Your task to perform on an android device: open chrome privacy settings Image 0: 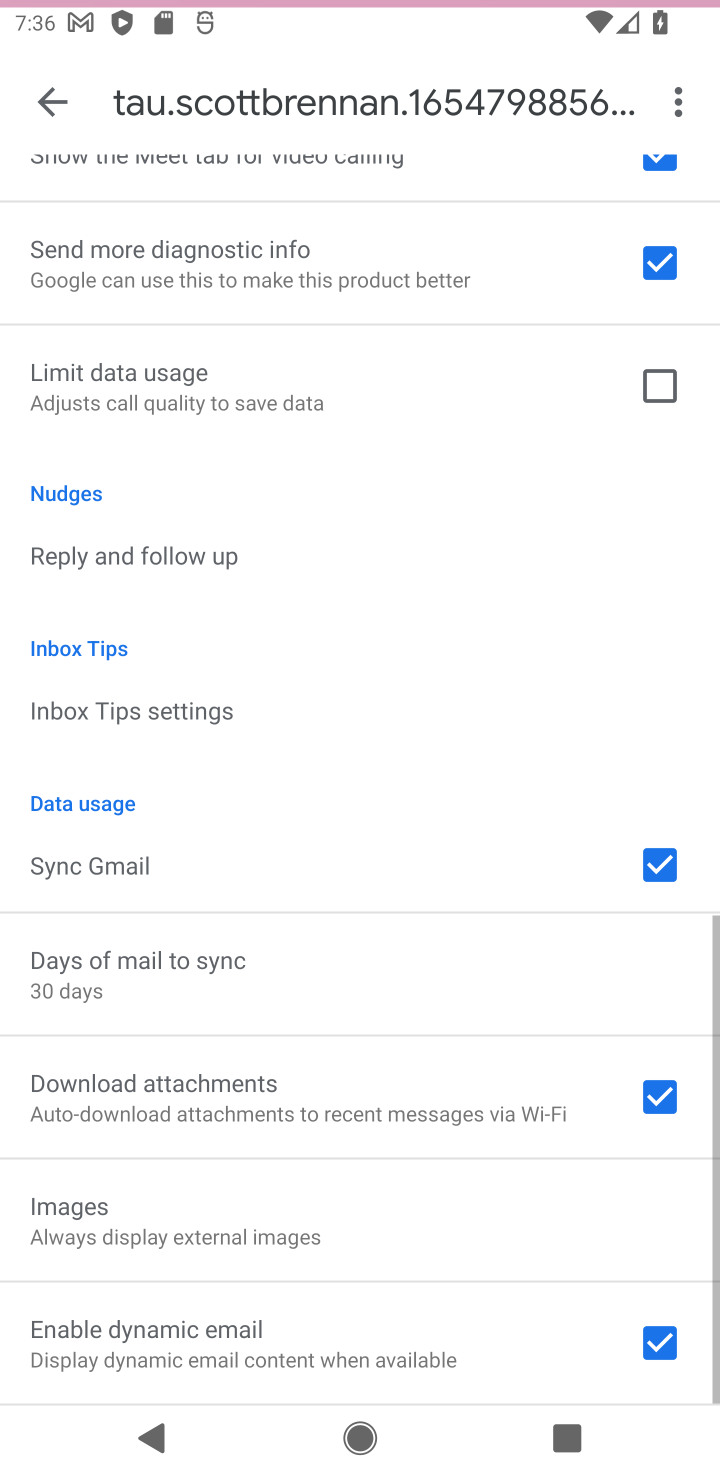
Step 0: press home button
Your task to perform on an android device: open chrome privacy settings Image 1: 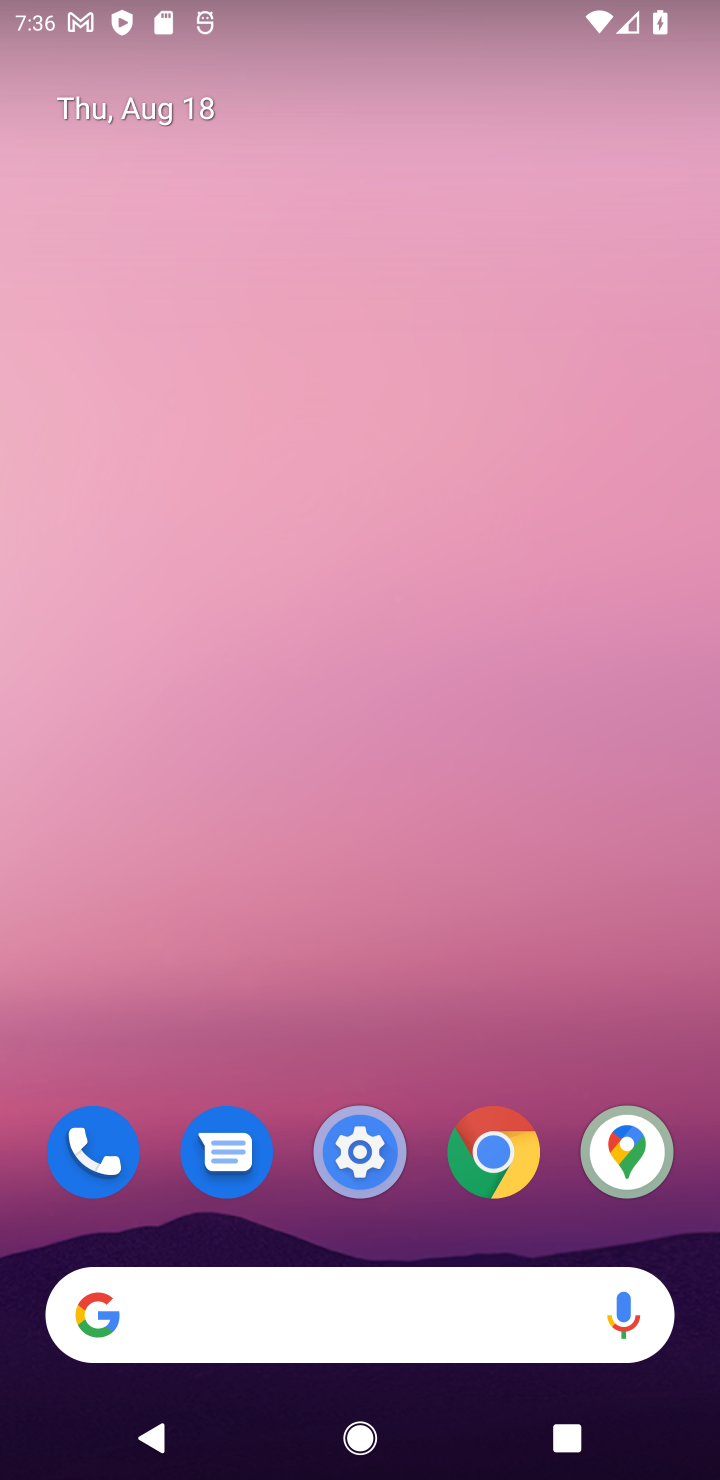
Step 1: click (492, 1169)
Your task to perform on an android device: open chrome privacy settings Image 2: 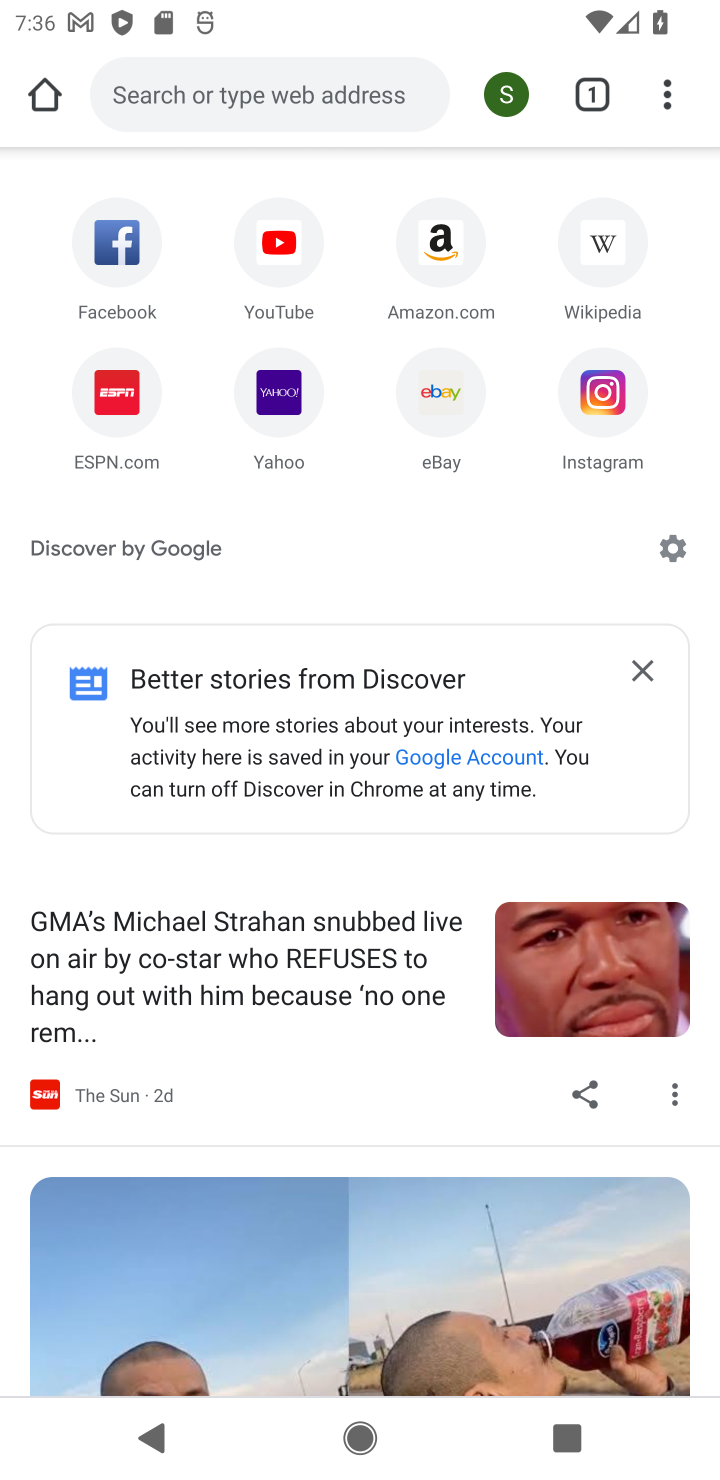
Step 2: drag from (661, 99) to (380, 980)
Your task to perform on an android device: open chrome privacy settings Image 3: 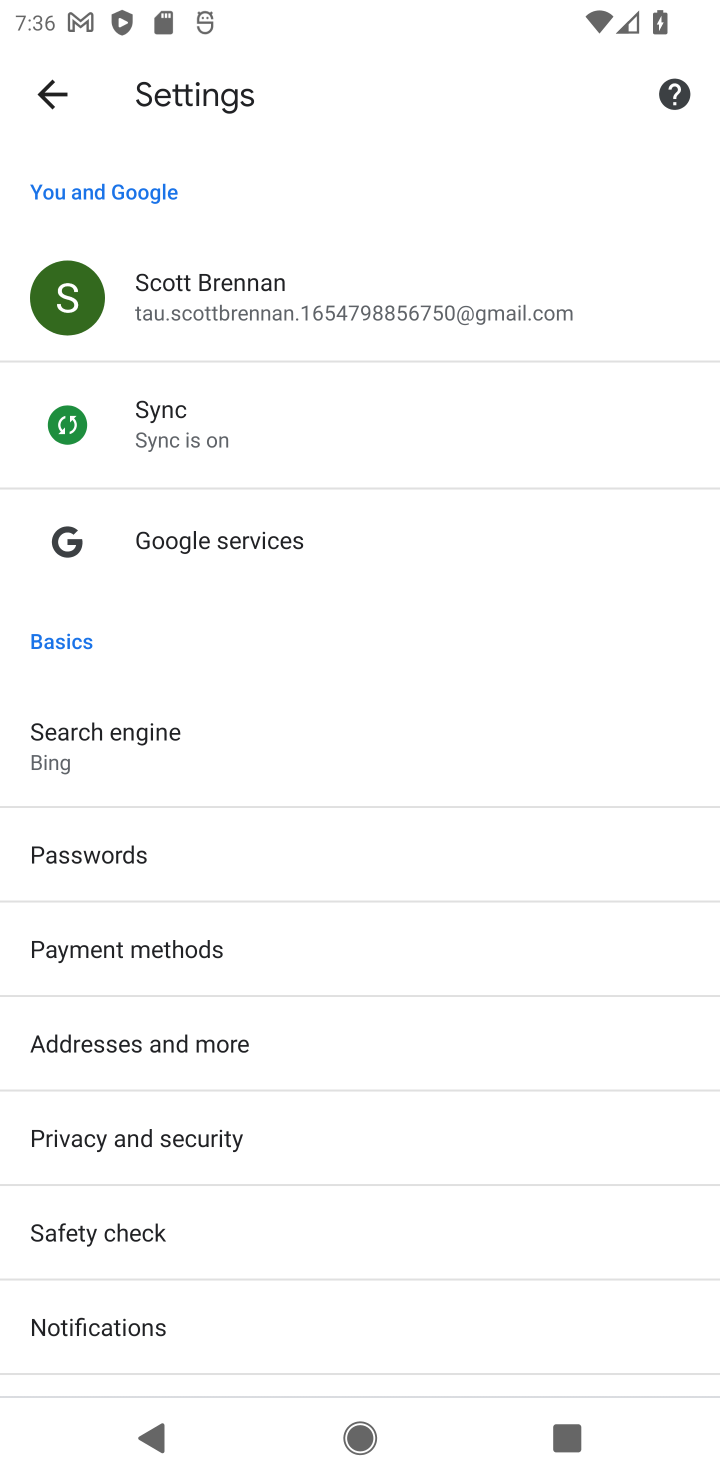
Step 3: click (131, 1141)
Your task to perform on an android device: open chrome privacy settings Image 4: 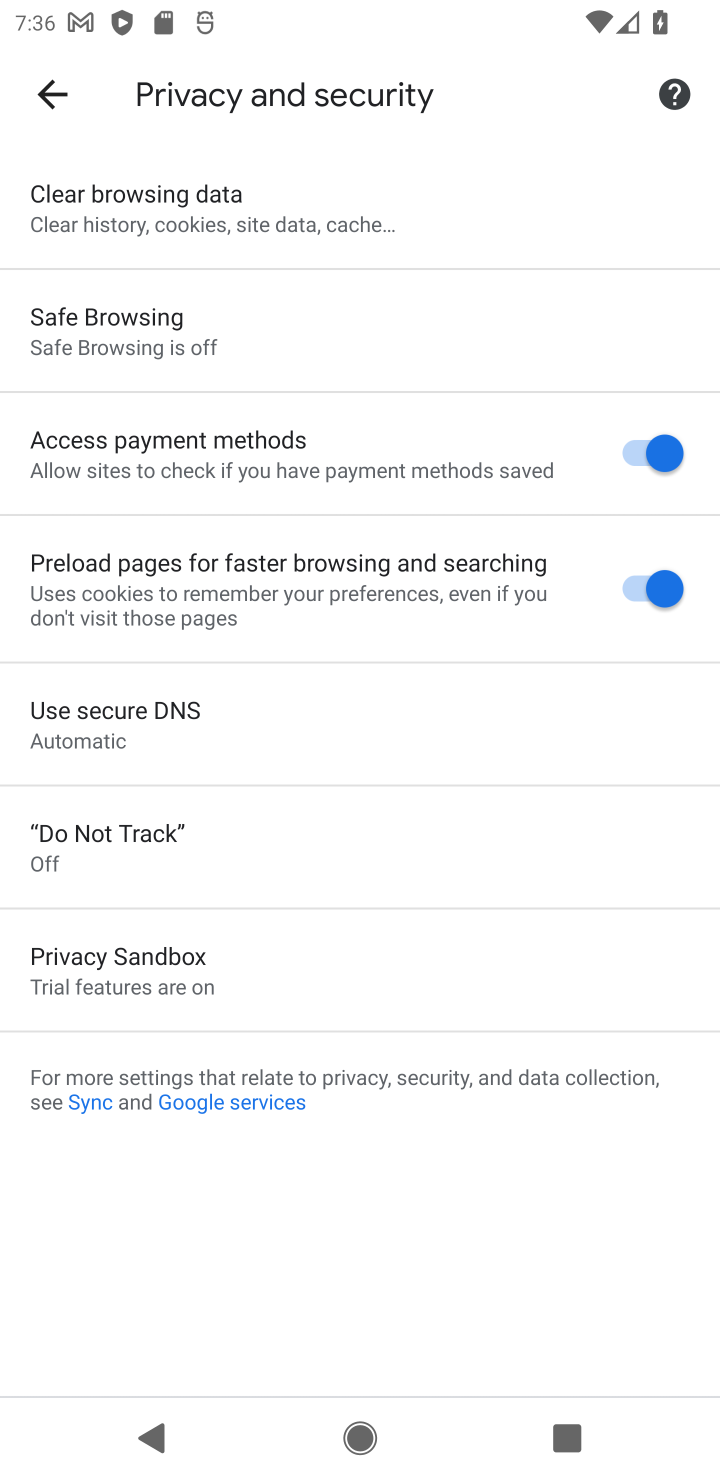
Step 4: task complete